Your task to perform on an android device: change the upload size in google photos Image 0: 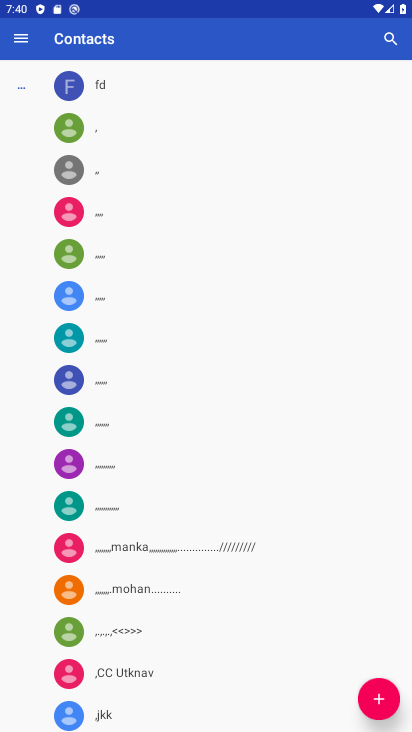
Step 0: press home button
Your task to perform on an android device: change the upload size in google photos Image 1: 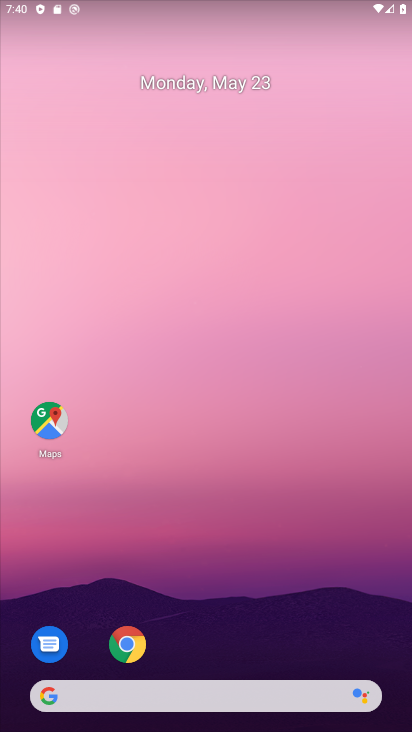
Step 1: drag from (55, 511) to (321, 39)
Your task to perform on an android device: change the upload size in google photos Image 2: 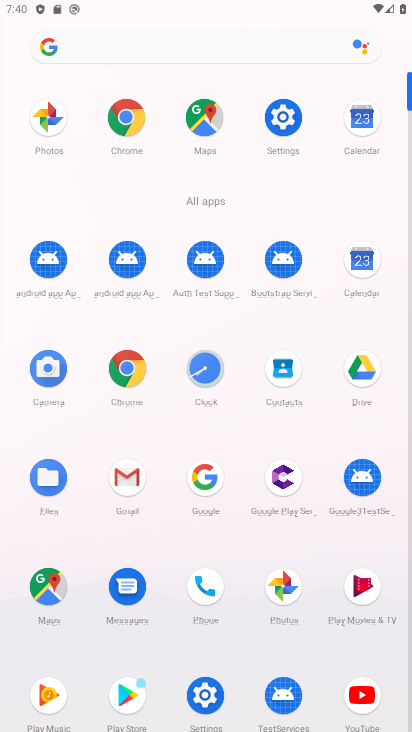
Step 2: click (60, 115)
Your task to perform on an android device: change the upload size in google photos Image 3: 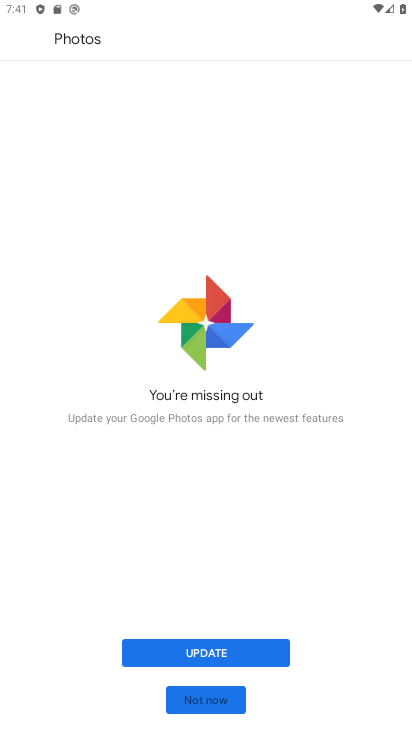
Step 3: click (192, 719)
Your task to perform on an android device: change the upload size in google photos Image 4: 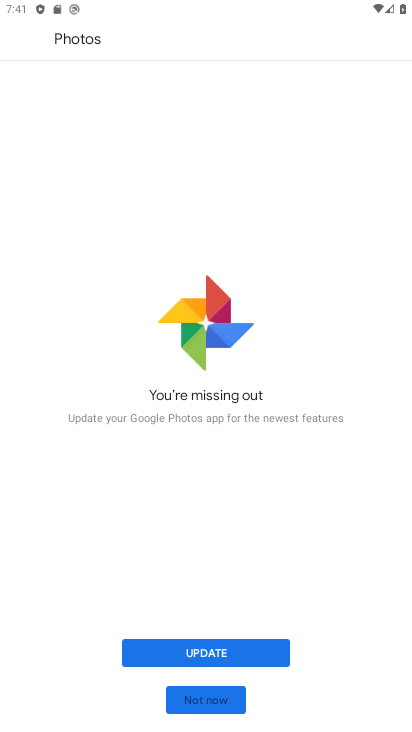
Step 4: click (193, 695)
Your task to perform on an android device: change the upload size in google photos Image 5: 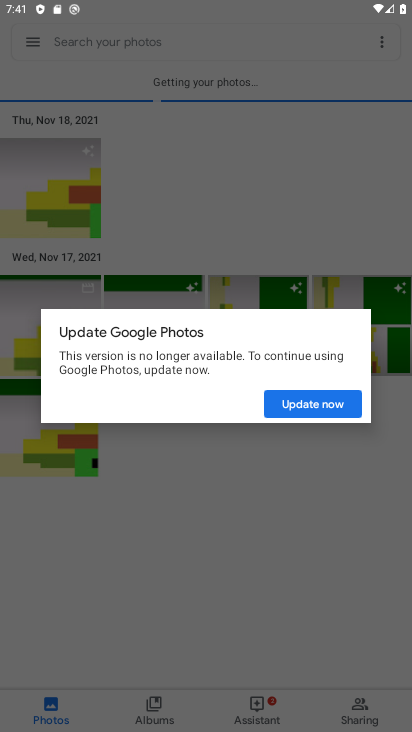
Step 5: click (342, 410)
Your task to perform on an android device: change the upload size in google photos Image 6: 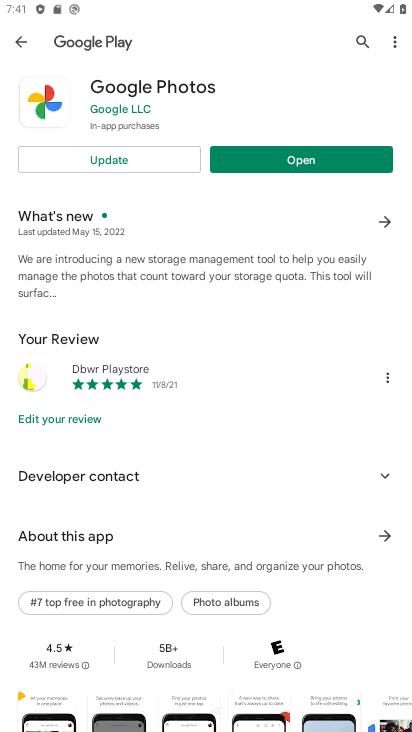
Step 6: click (289, 163)
Your task to perform on an android device: change the upload size in google photos Image 7: 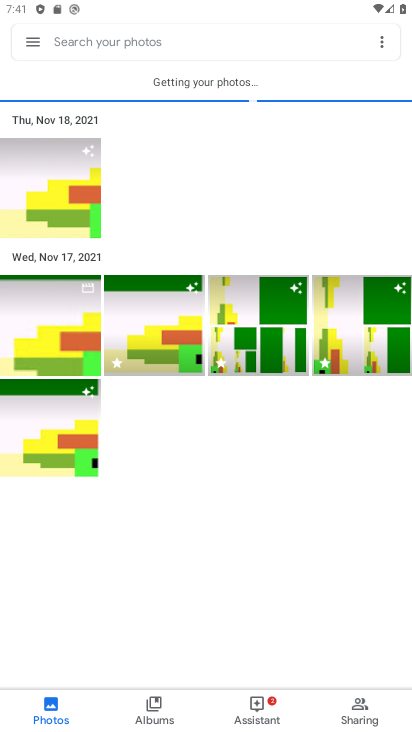
Step 7: click (29, 46)
Your task to perform on an android device: change the upload size in google photos Image 8: 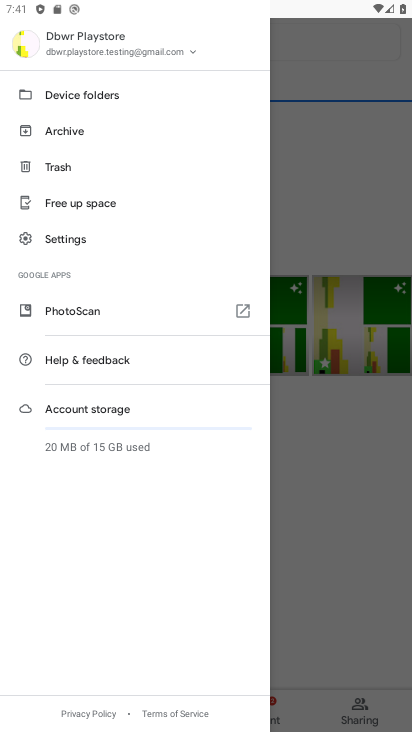
Step 8: click (71, 235)
Your task to perform on an android device: change the upload size in google photos Image 9: 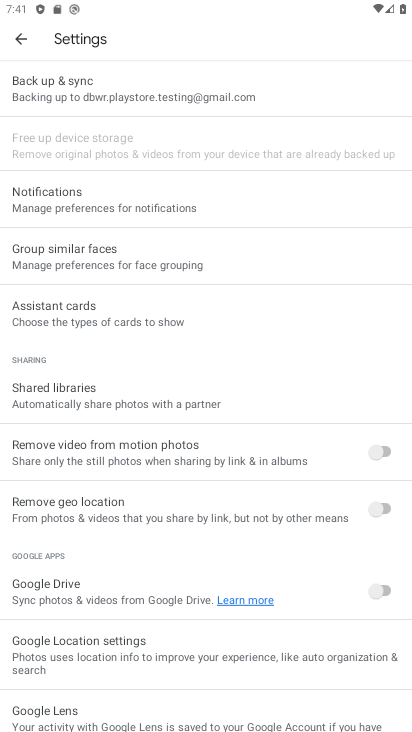
Step 9: click (80, 101)
Your task to perform on an android device: change the upload size in google photos Image 10: 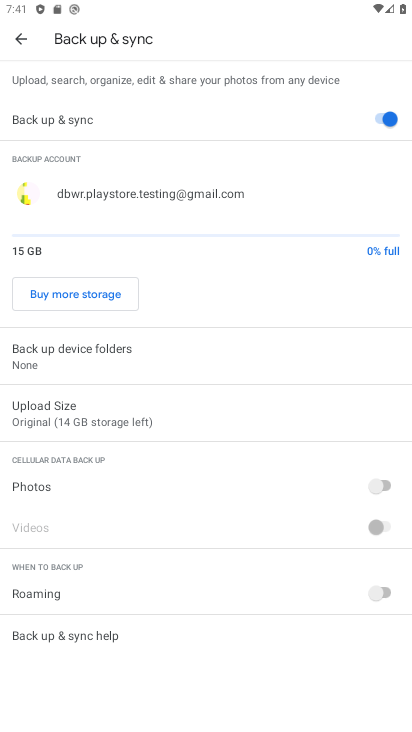
Step 10: click (70, 418)
Your task to perform on an android device: change the upload size in google photos Image 11: 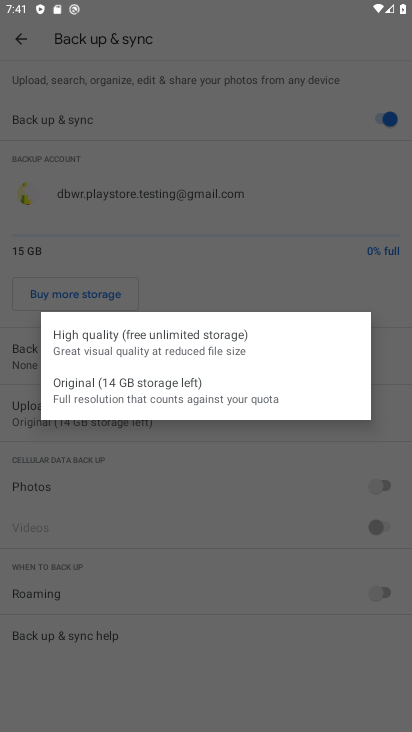
Step 11: click (97, 354)
Your task to perform on an android device: change the upload size in google photos Image 12: 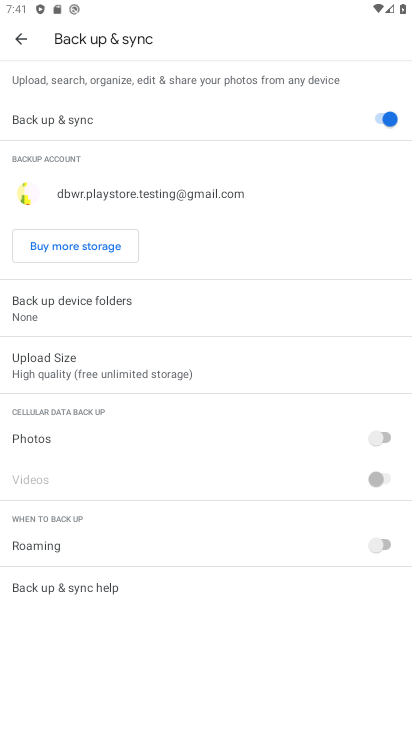
Step 12: task complete